Your task to perform on an android device: stop showing notifications on the lock screen Image 0: 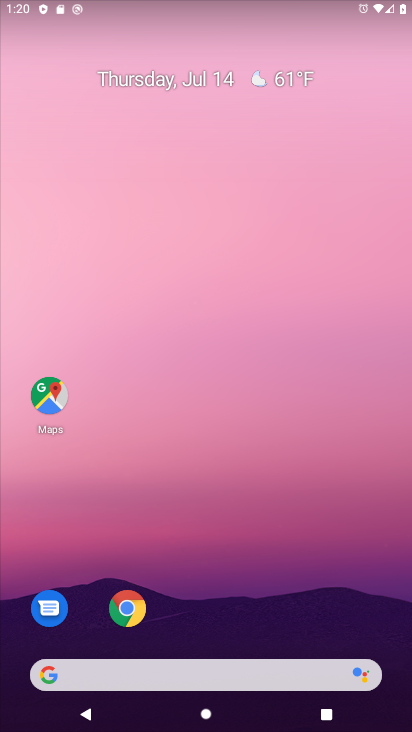
Step 0: drag from (213, 573) to (176, 230)
Your task to perform on an android device: stop showing notifications on the lock screen Image 1: 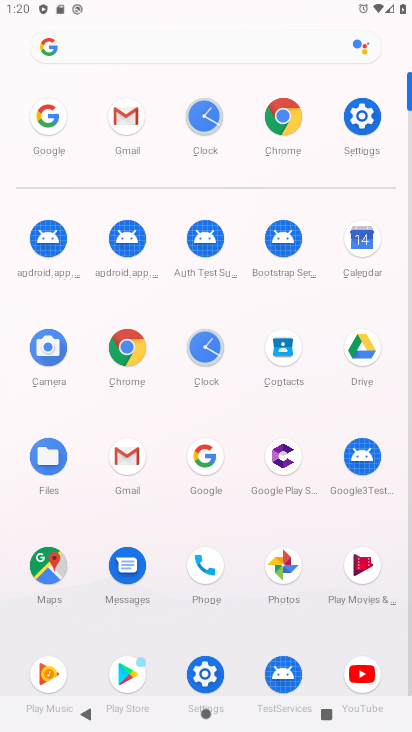
Step 1: click (355, 120)
Your task to perform on an android device: stop showing notifications on the lock screen Image 2: 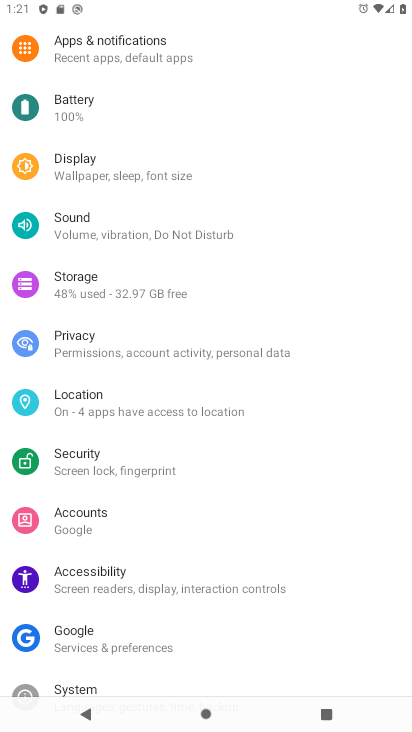
Step 2: click (72, 340)
Your task to perform on an android device: stop showing notifications on the lock screen Image 3: 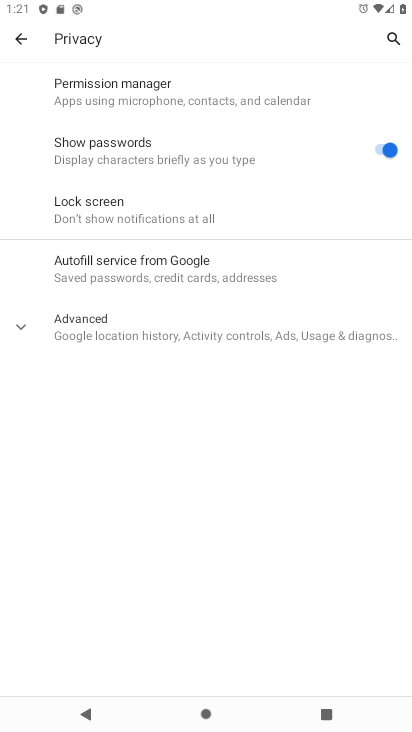
Step 3: click (76, 203)
Your task to perform on an android device: stop showing notifications on the lock screen Image 4: 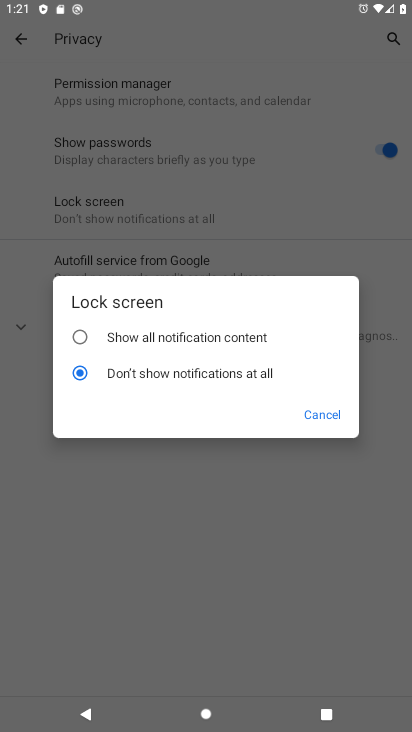
Step 4: click (318, 418)
Your task to perform on an android device: stop showing notifications on the lock screen Image 5: 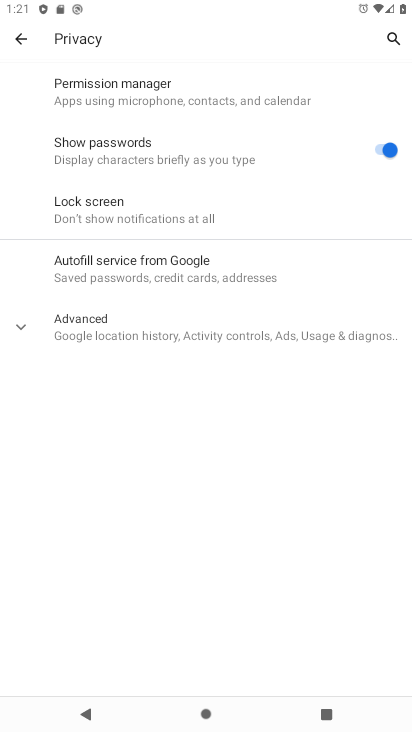
Step 5: task complete